Your task to perform on an android device: empty trash in google photos Image 0: 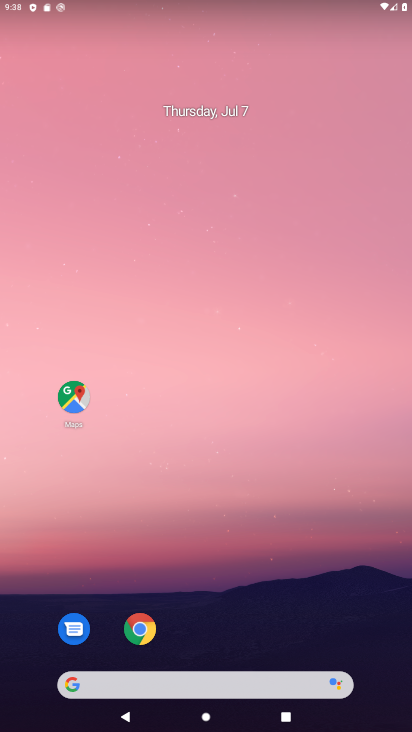
Step 0: drag from (65, 706) to (204, 21)
Your task to perform on an android device: empty trash in google photos Image 1: 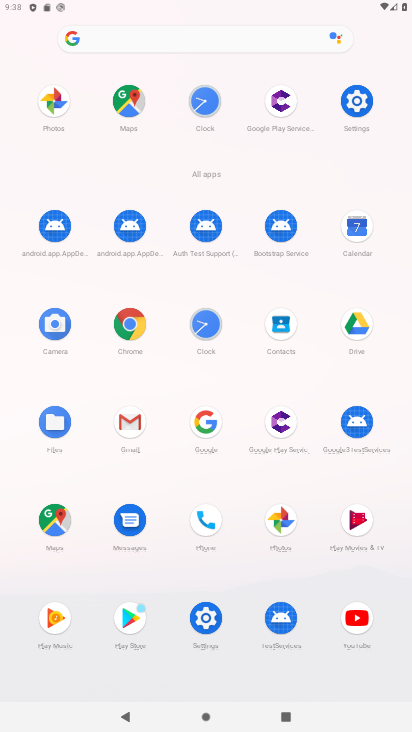
Step 1: click (279, 516)
Your task to perform on an android device: empty trash in google photos Image 2: 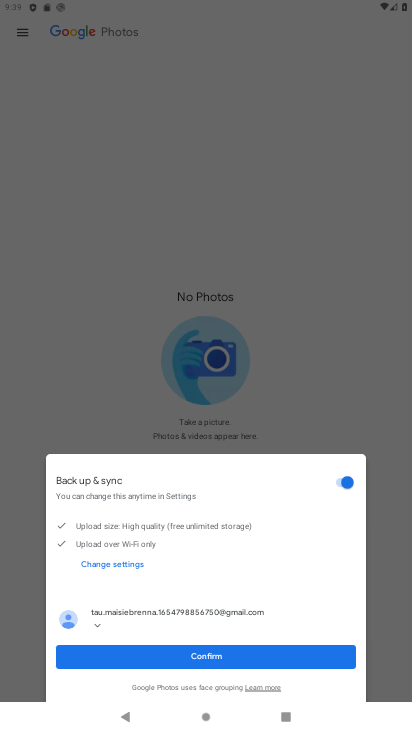
Step 2: click (164, 656)
Your task to perform on an android device: empty trash in google photos Image 3: 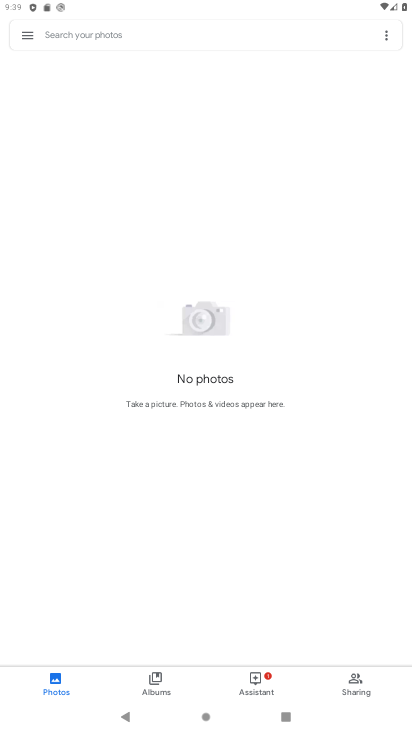
Step 3: click (26, 35)
Your task to perform on an android device: empty trash in google photos Image 4: 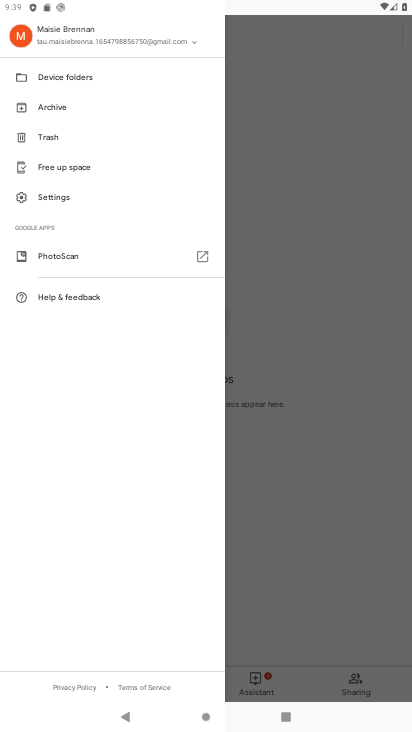
Step 4: click (49, 135)
Your task to perform on an android device: empty trash in google photos Image 5: 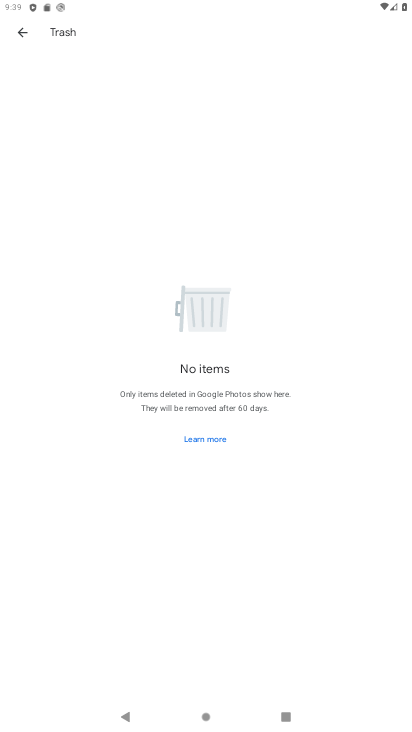
Step 5: task complete